Your task to perform on an android device: Open Maps and search for coffee Image 0: 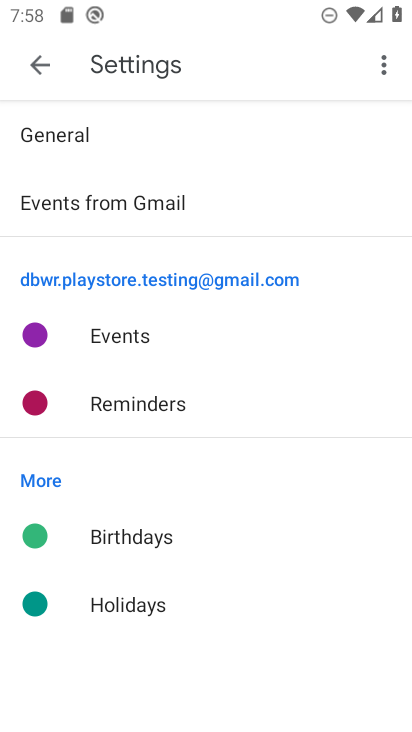
Step 0: press home button
Your task to perform on an android device: Open Maps and search for coffee Image 1: 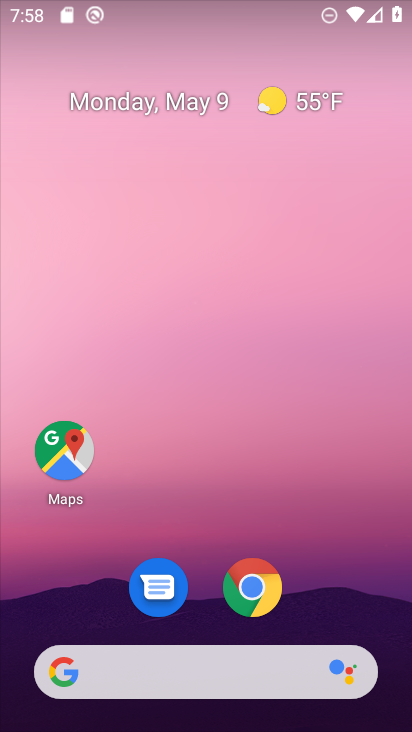
Step 1: click (72, 461)
Your task to perform on an android device: Open Maps and search for coffee Image 2: 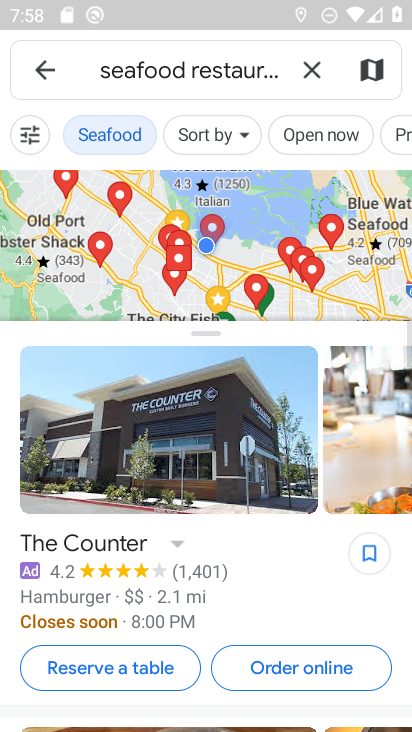
Step 2: click (310, 71)
Your task to perform on an android device: Open Maps and search for coffee Image 3: 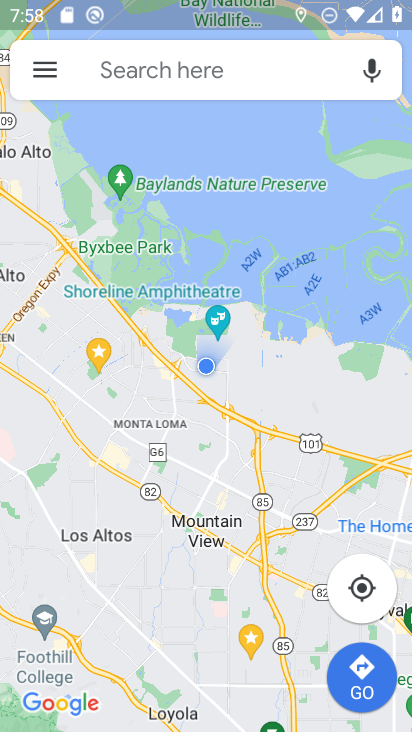
Step 3: click (246, 83)
Your task to perform on an android device: Open Maps and search for coffee Image 4: 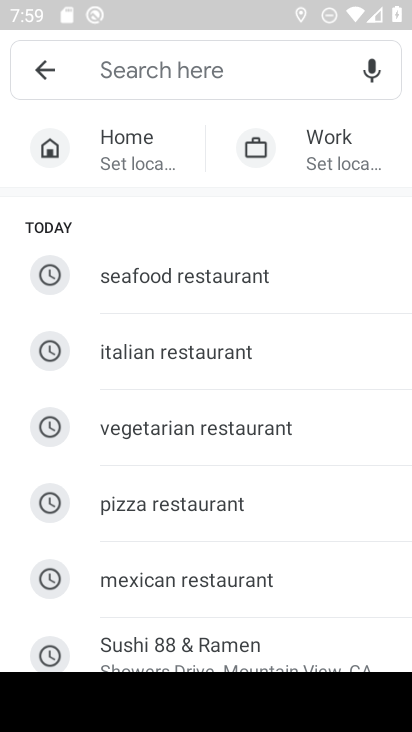
Step 4: type "coffee"
Your task to perform on an android device: Open Maps and search for coffee Image 5: 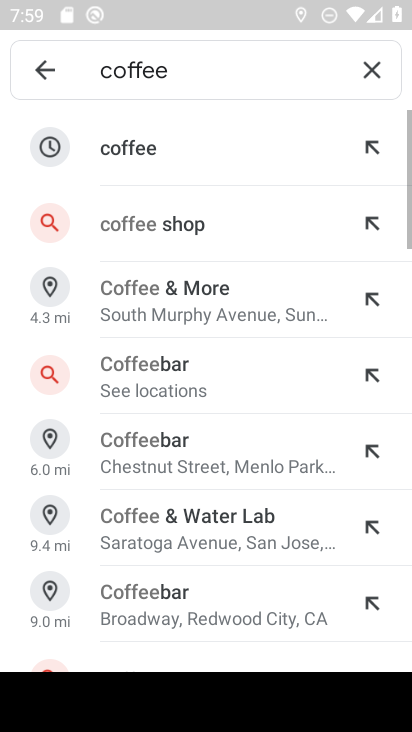
Step 5: click (162, 138)
Your task to perform on an android device: Open Maps and search for coffee Image 6: 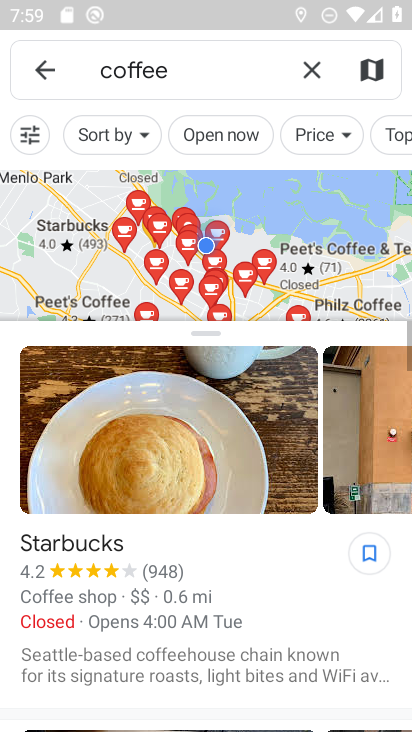
Step 6: task complete